Your task to perform on an android device: Open Reddit.com Image 0: 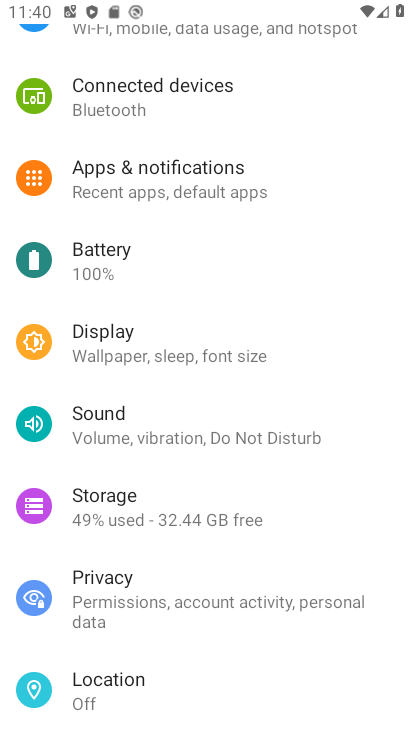
Step 0: press home button
Your task to perform on an android device: Open Reddit.com Image 1: 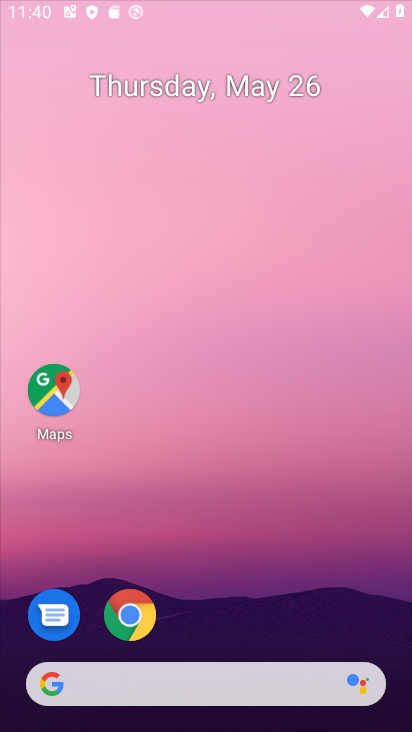
Step 1: drag from (202, 617) to (225, 1)
Your task to perform on an android device: Open Reddit.com Image 2: 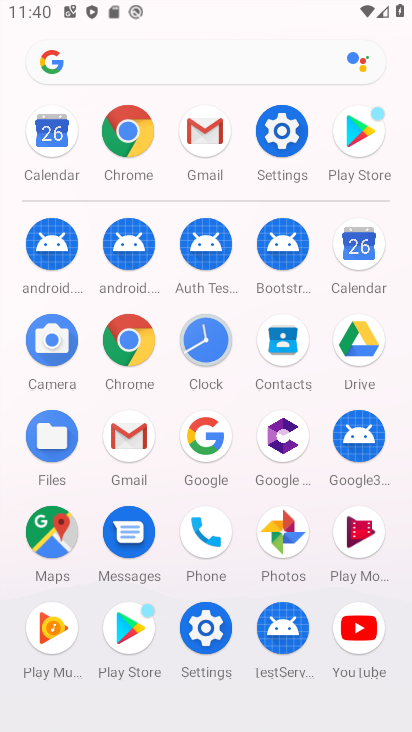
Step 2: click (135, 351)
Your task to perform on an android device: Open Reddit.com Image 3: 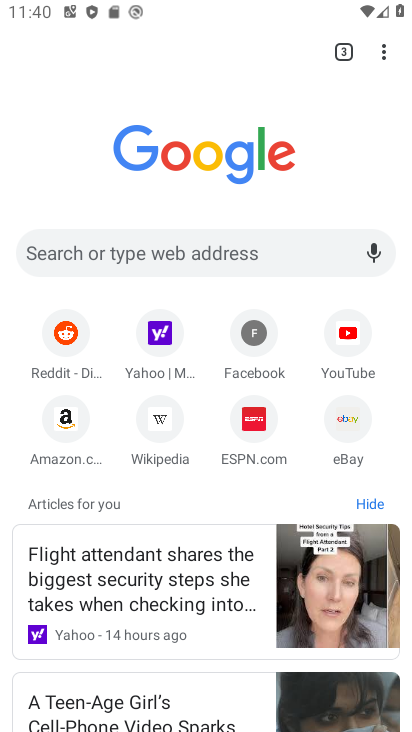
Step 3: click (54, 354)
Your task to perform on an android device: Open Reddit.com Image 4: 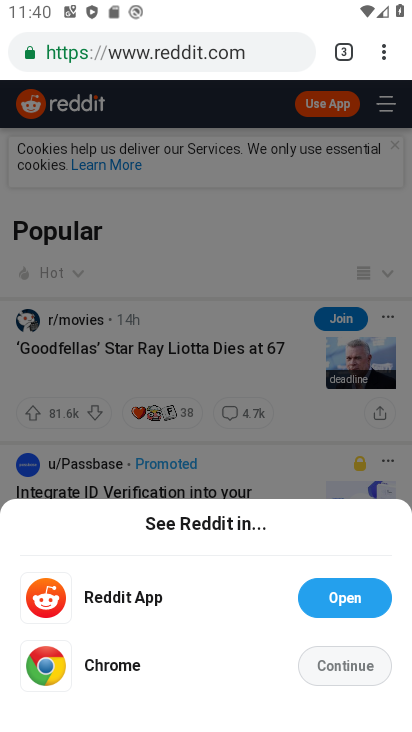
Step 4: task complete